Your task to perform on an android device: Open Reddit.com Image 0: 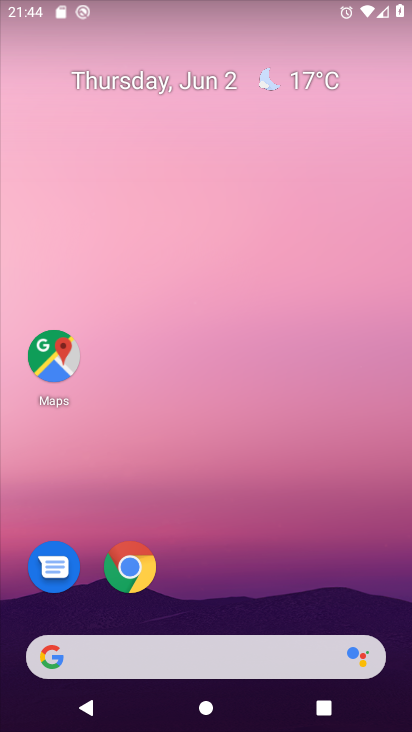
Step 0: click (127, 566)
Your task to perform on an android device: Open Reddit.com Image 1: 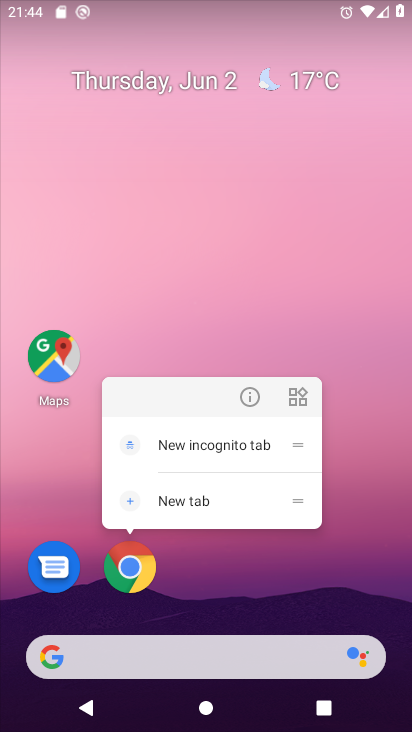
Step 1: click (134, 587)
Your task to perform on an android device: Open Reddit.com Image 2: 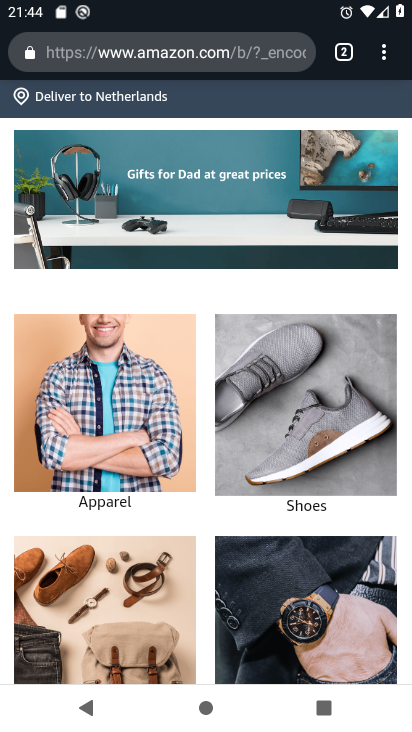
Step 2: click (185, 57)
Your task to perform on an android device: Open Reddit.com Image 3: 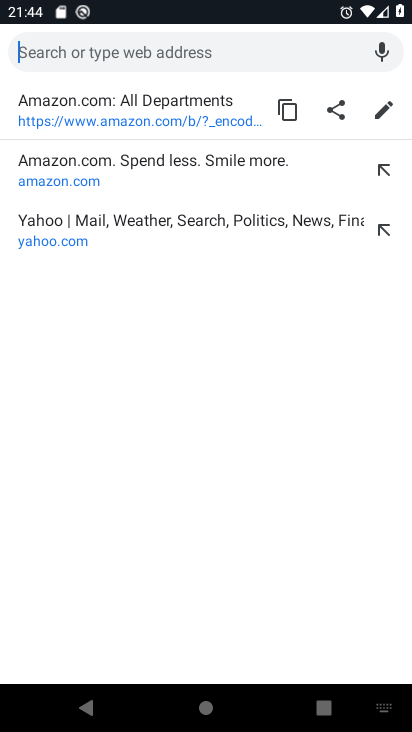
Step 3: type "reddit.com"
Your task to perform on an android device: Open Reddit.com Image 4: 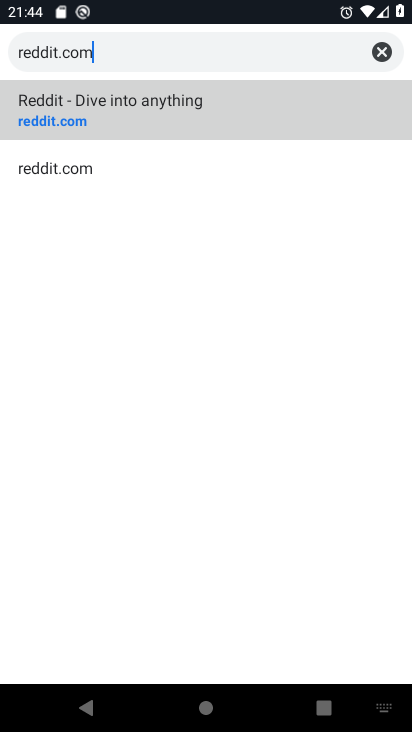
Step 4: click (126, 108)
Your task to perform on an android device: Open Reddit.com Image 5: 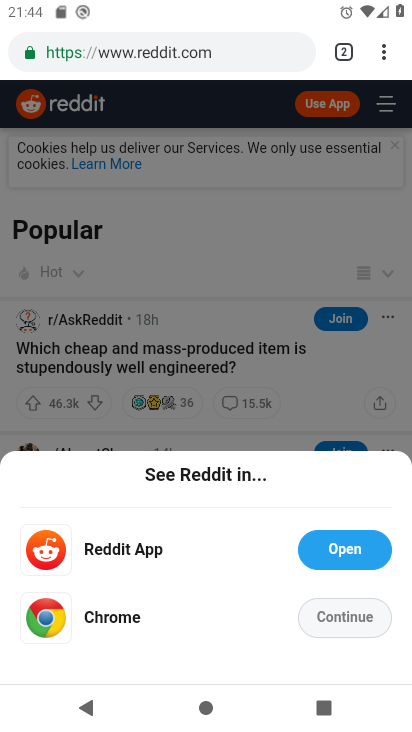
Step 5: task complete